Your task to perform on an android device: Go to Amazon Image 0: 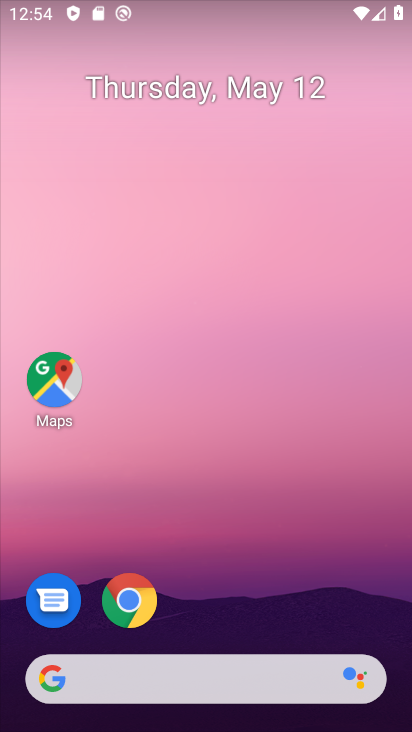
Step 0: click (139, 608)
Your task to perform on an android device: Go to Amazon Image 1: 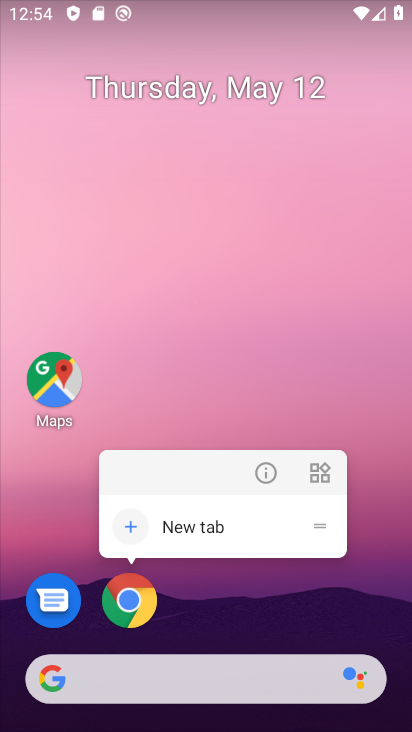
Step 1: click (139, 607)
Your task to perform on an android device: Go to Amazon Image 2: 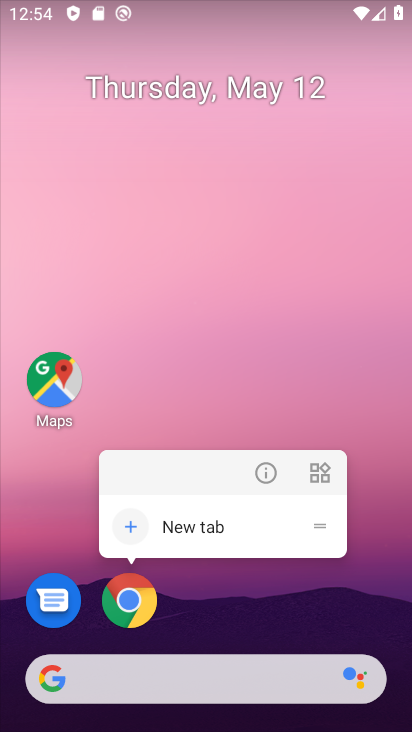
Step 2: click (139, 607)
Your task to perform on an android device: Go to Amazon Image 3: 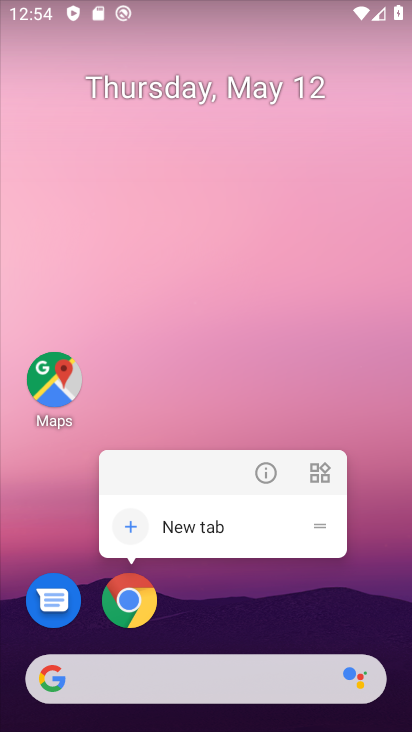
Step 3: click (139, 587)
Your task to perform on an android device: Go to Amazon Image 4: 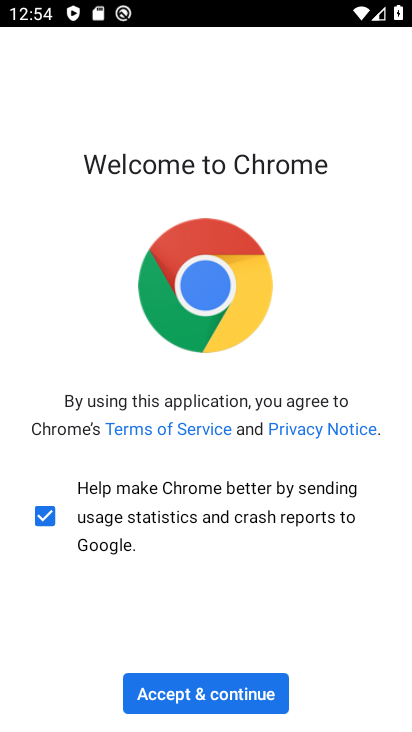
Step 4: click (218, 700)
Your task to perform on an android device: Go to Amazon Image 5: 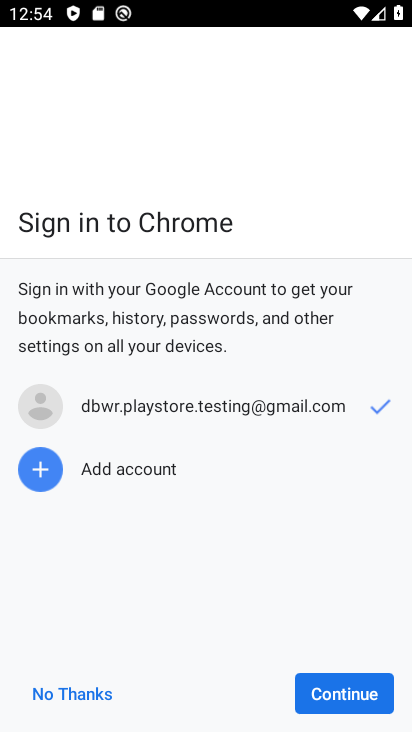
Step 5: click (337, 693)
Your task to perform on an android device: Go to Amazon Image 6: 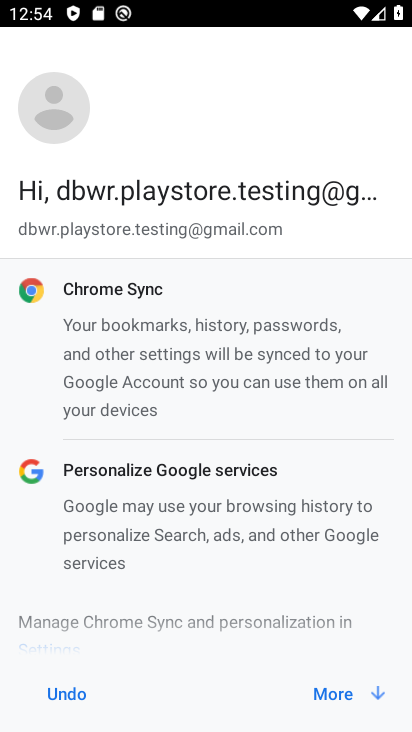
Step 6: click (337, 693)
Your task to perform on an android device: Go to Amazon Image 7: 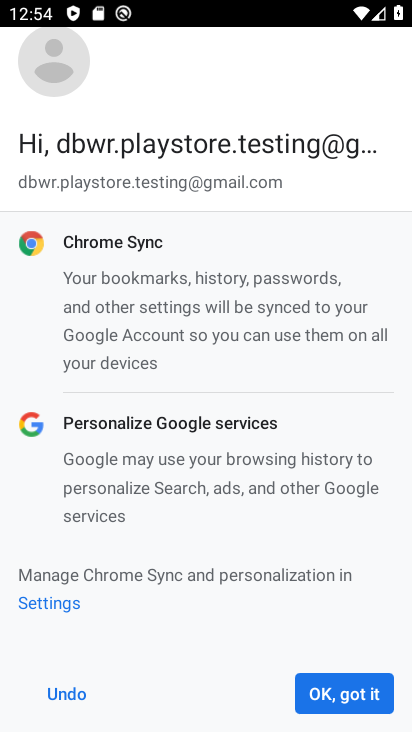
Step 7: click (337, 693)
Your task to perform on an android device: Go to Amazon Image 8: 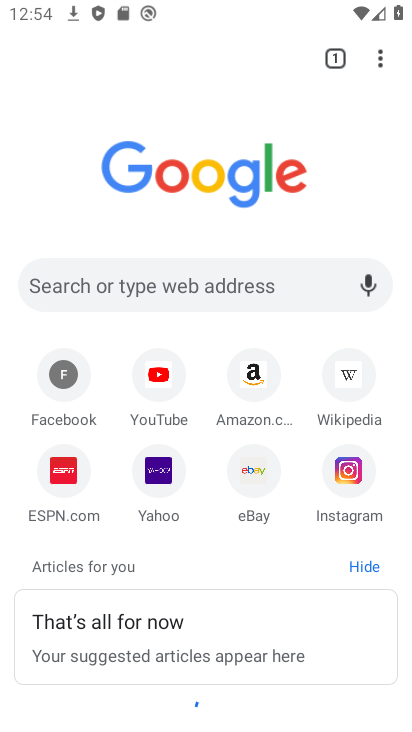
Step 8: click (243, 383)
Your task to perform on an android device: Go to Amazon Image 9: 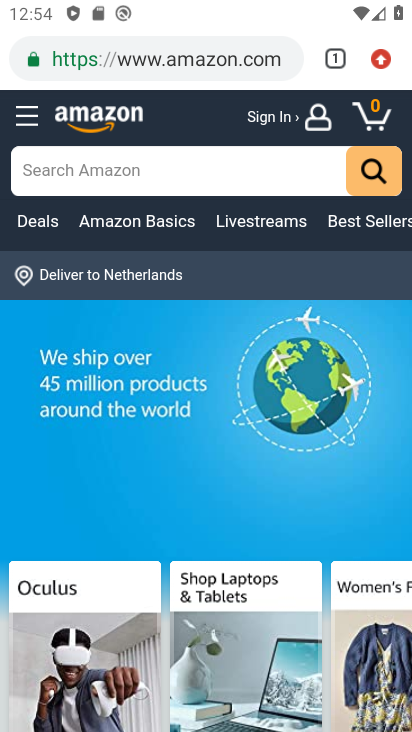
Step 9: task complete